Your task to perform on an android device: turn on wifi Image 0: 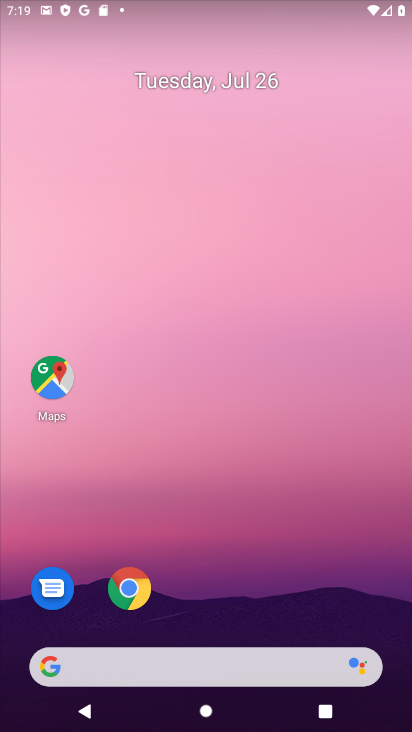
Step 0: drag from (209, 673) to (208, 197)
Your task to perform on an android device: turn on wifi Image 1: 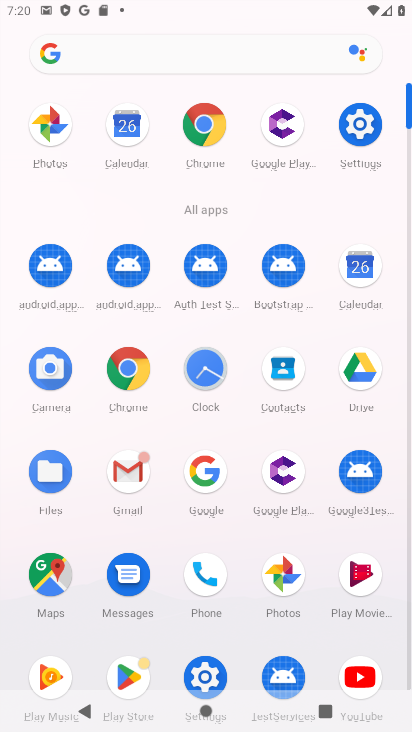
Step 1: click (367, 153)
Your task to perform on an android device: turn on wifi Image 2: 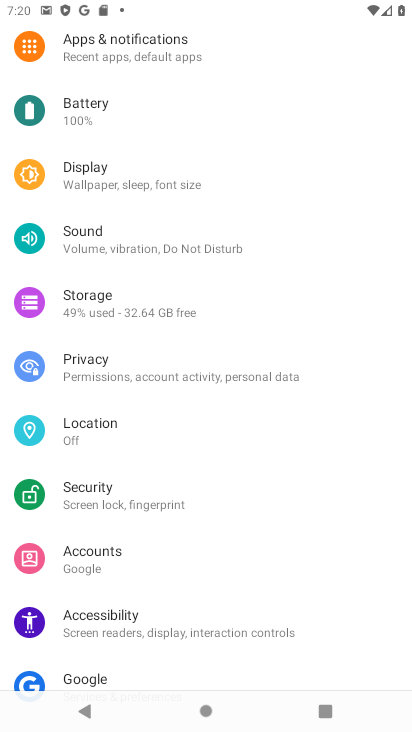
Step 2: drag from (270, 292) to (212, 677)
Your task to perform on an android device: turn on wifi Image 3: 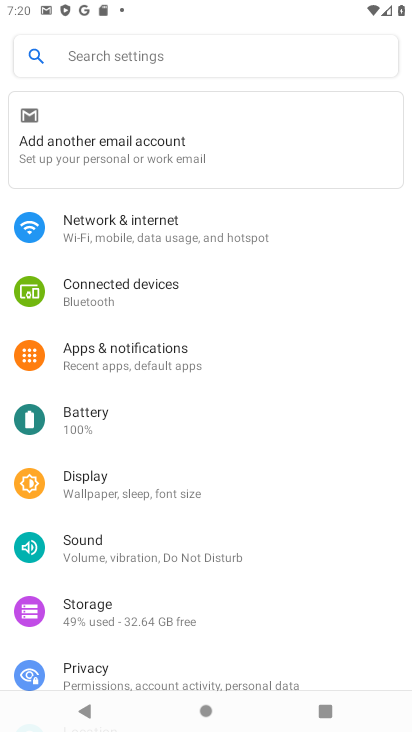
Step 3: click (191, 234)
Your task to perform on an android device: turn on wifi Image 4: 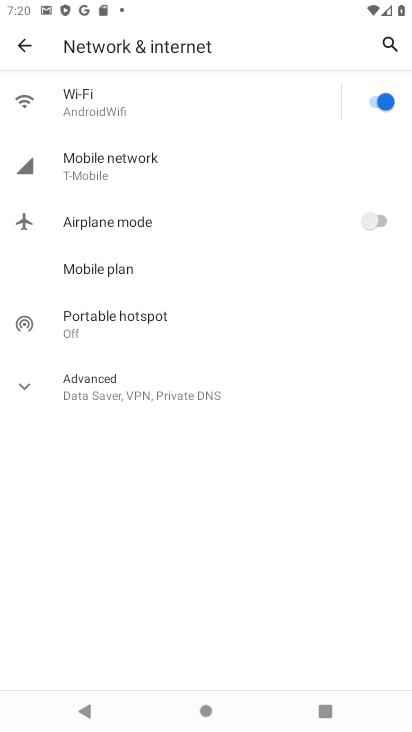
Step 4: click (163, 112)
Your task to perform on an android device: turn on wifi Image 5: 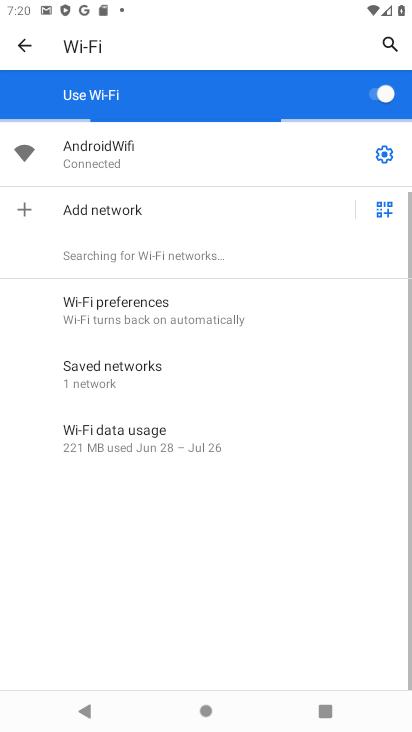
Step 5: task complete